Your task to perform on an android device: turn off javascript in the chrome app Image 0: 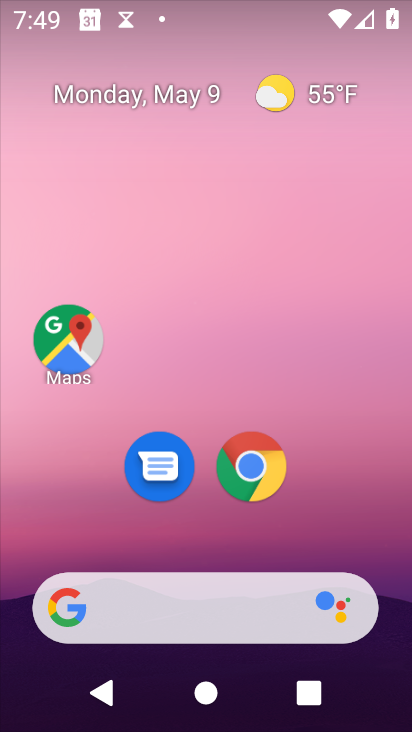
Step 0: click (215, 91)
Your task to perform on an android device: turn off javascript in the chrome app Image 1: 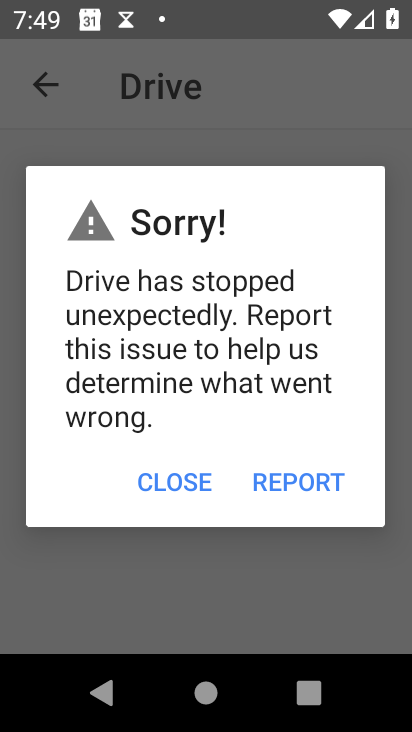
Step 1: click (187, 477)
Your task to perform on an android device: turn off javascript in the chrome app Image 2: 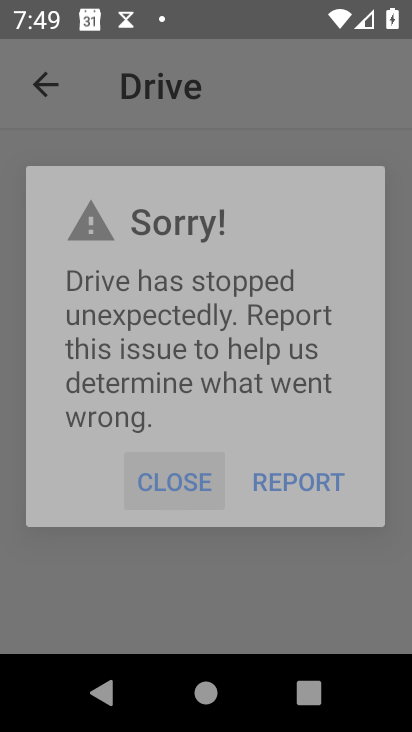
Step 2: click (187, 477)
Your task to perform on an android device: turn off javascript in the chrome app Image 3: 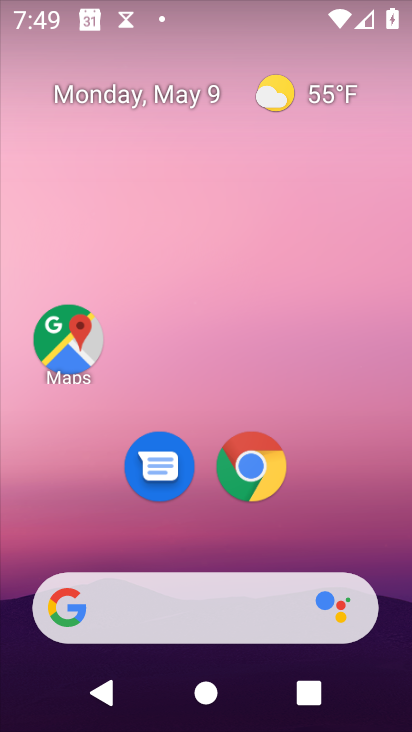
Step 3: drag from (327, 549) to (28, 81)
Your task to perform on an android device: turn off javascript in the chrome app Image 4: 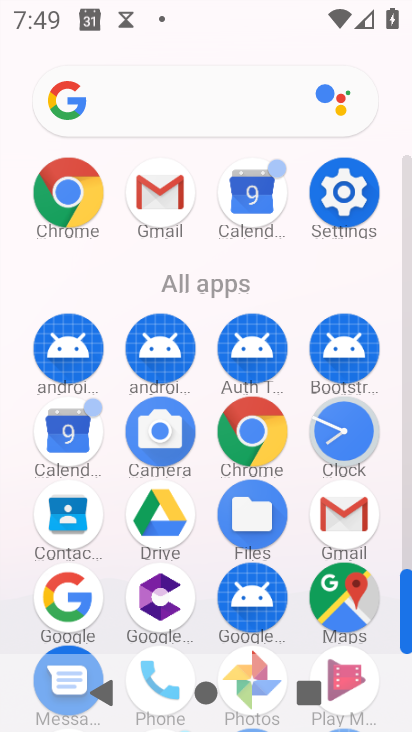
Step 4: click (246, 437)
Your task to perform on an android device: turn off javascript in the chrome app Image 5: 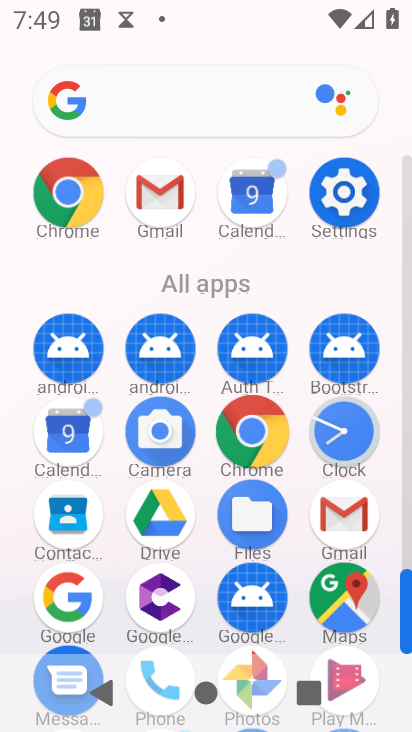
Step 5: click (249, 437)
Your task to perform on an android device: turn off javascript in the chrome app Image 6: 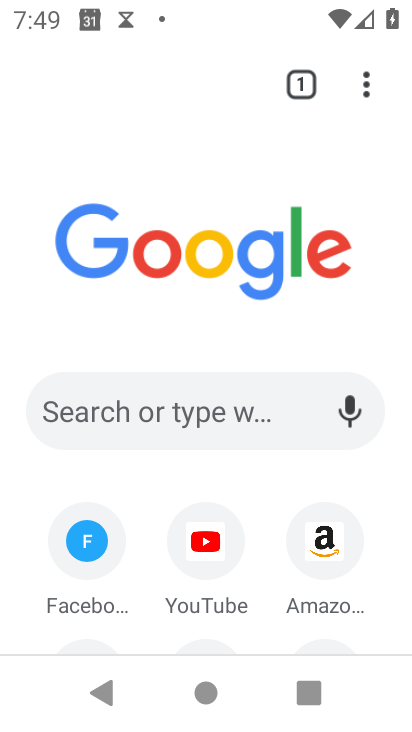
Step 6: drag from (364, 84) to (178, 452)
Your task to perform on an android device: turn off javascript in the chrome app Image 7: 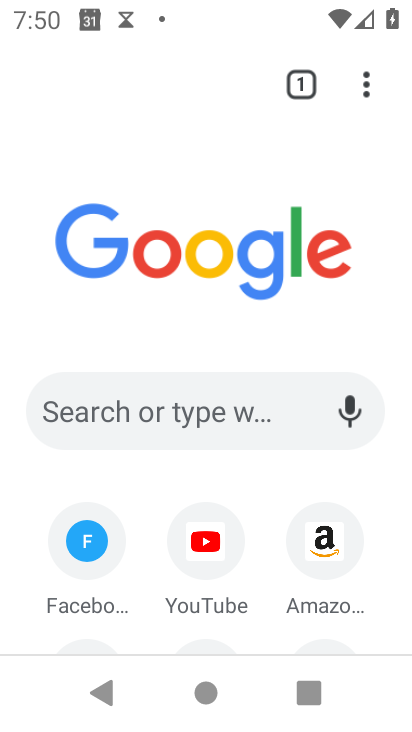
Step 7: drag from (128, 508) to (84, 129)
Your task to perform on an android device: turn off javascript in the chrome app Image 8: 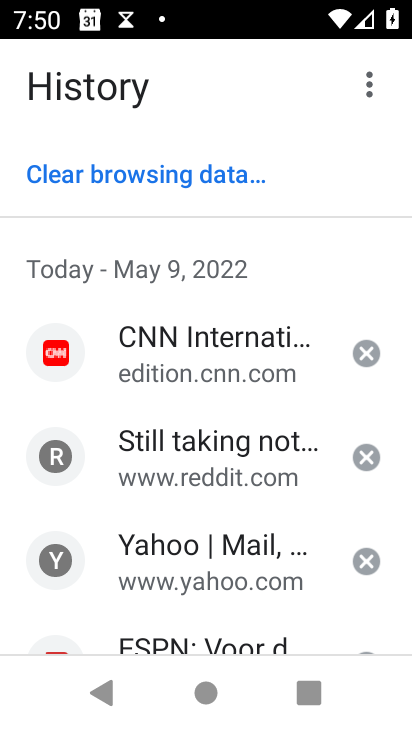
Step 8: click (146, 69)
Your task to perform on an android device: turn off javascript in the chrome app Image 9: 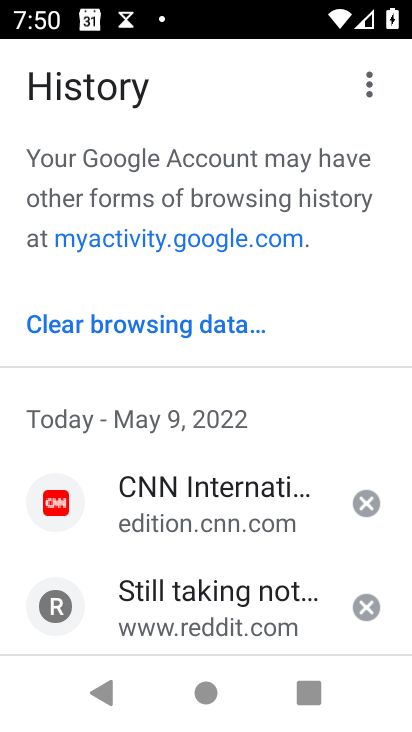
Step 9: press back button
Your task to perform on an android device: turn off javascript in the chrome app Image 10: 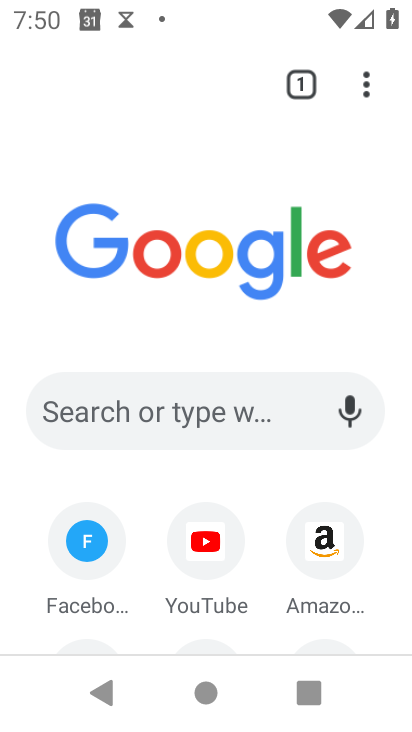
Step 10: drag from (353, 85) to (275, 523)
Your task to perform on an android device: turn off javascript in the chrome app Image 11: 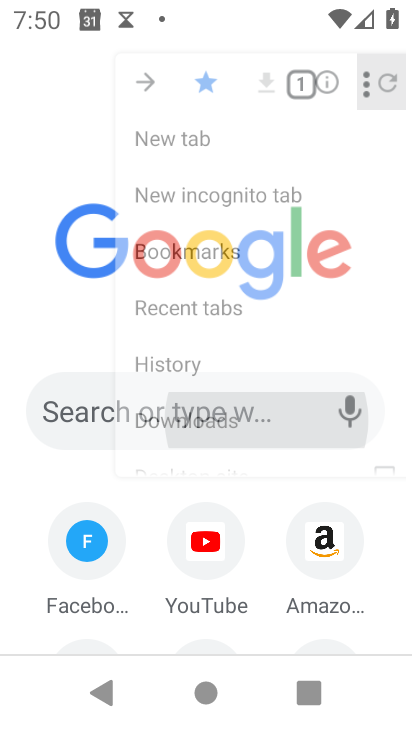
Step 11: drag from (252, 534) to (239, 151)
Your task to perform on an android device: turn off javascript in the chrome app Image 12: 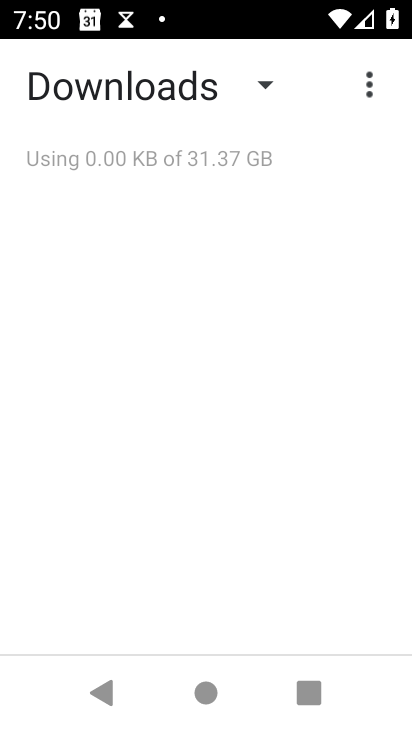
Step 12: drag from (239, 386) to (237, 101)
Your task to perform on an android device: turn off javascript in the chrome app Image 13: 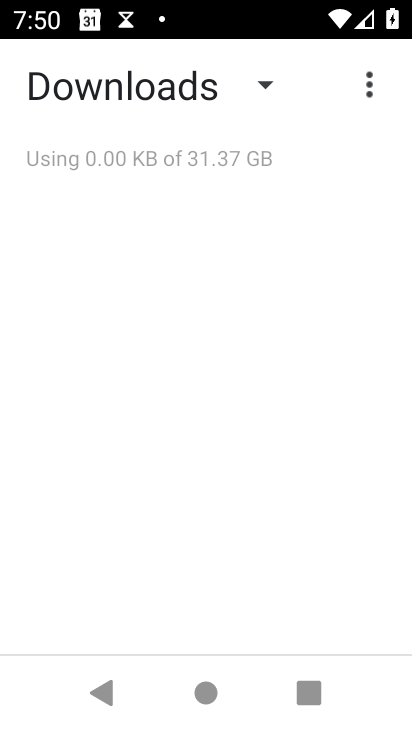
Step 13: press back button
Your task to perform on an android device: turn off javascript in the chrome app Image 14: 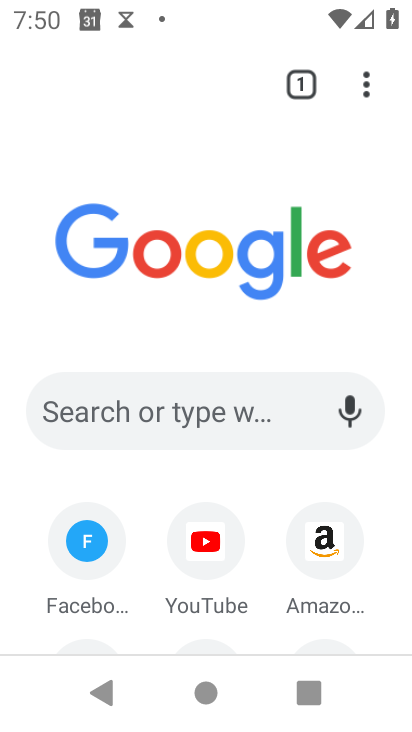
Step 14: click (370, 87)
Your task to perform on an android device: turn off javascript in the chrome app Image 15: 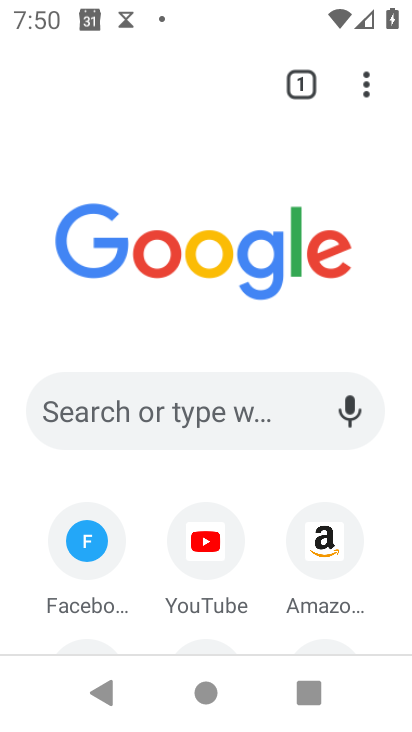
Step 15: click (370, 87)
Your task to perform on an android device: turn off javascript in the chrome app Image 16: 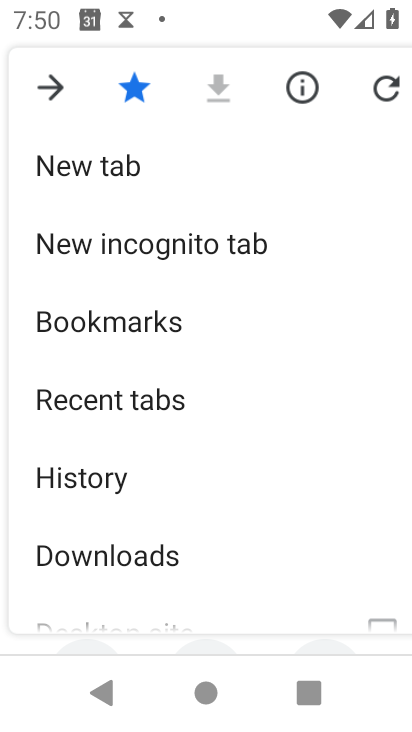
Step 16: drag from (208, 500) to (146, 173)
Your task to perform on an android device: turn off javascript in the chrome app Image 17: 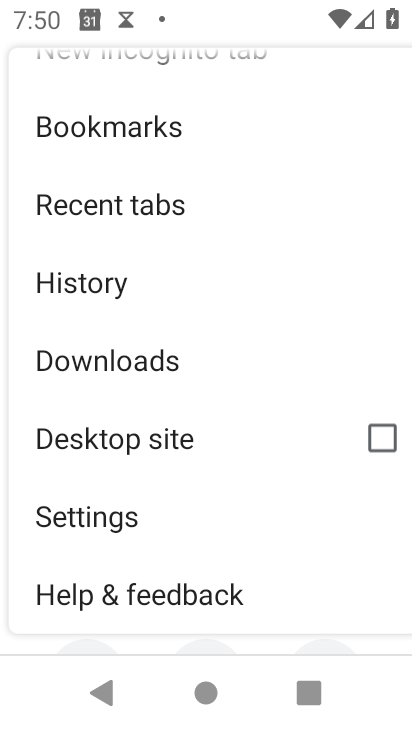
Step 17: click (83, 505)
Your task to perform on an android device: turn off javascript in the chrome app Image 18: 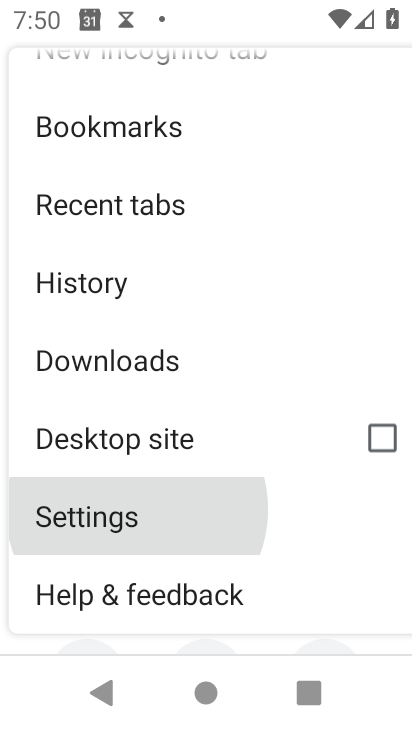
Step 18: click (83, 511)
Your task to perform on an android device: turn off javascript in the chrome app Image 19: 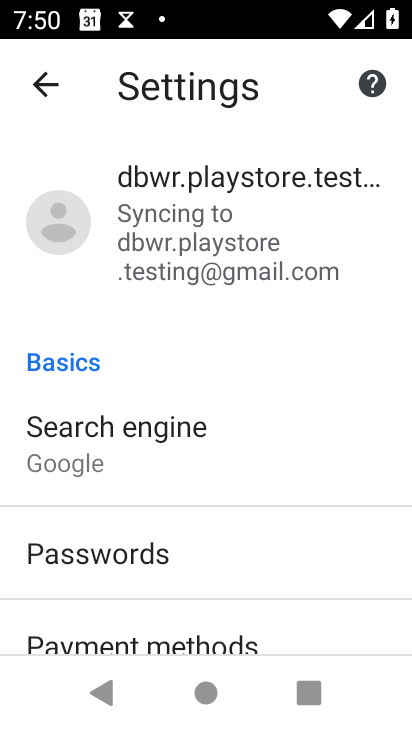
Step 19: drag from (194, 553) to (117, 150)
Your task to perform on an android device: turn off javascript in the chrome app Image 20: 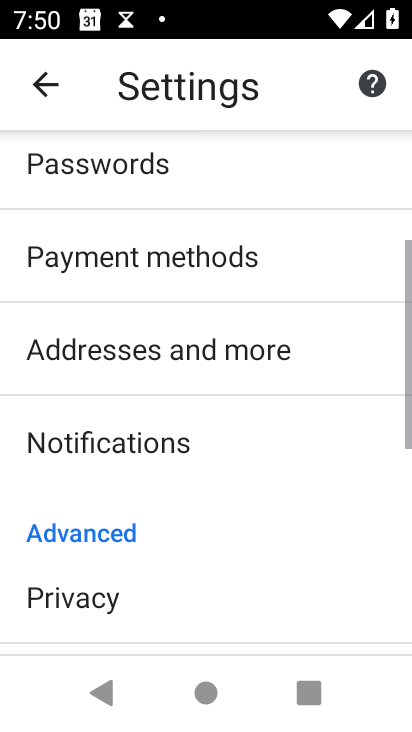
Step 20: drag from (194, 482) to (103, 119)
Your task to perform on an android device: turn off javascript in the chrome app Image 21: 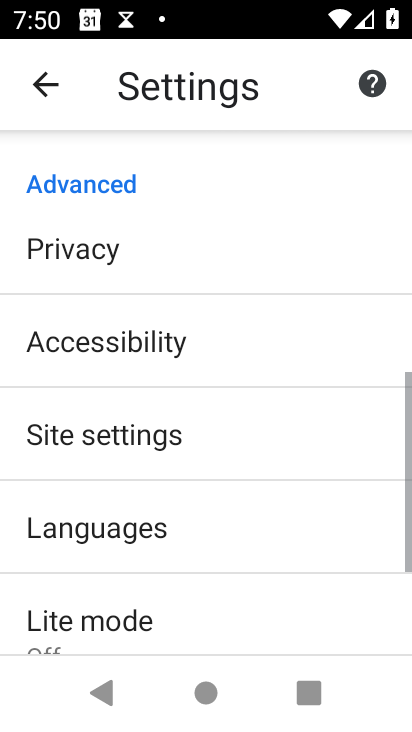
Step 21: drag from (148, 581) to (35, 192)
Your task to perform on an android device: turn off javascript in the chrome app Image 22: 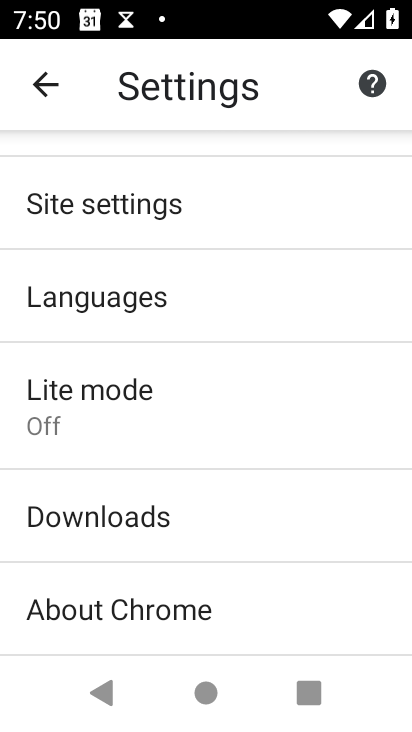
Step 22: click (82, 212)
Your task to perform on an android device: turn off javascript in the chrome app Image 23: 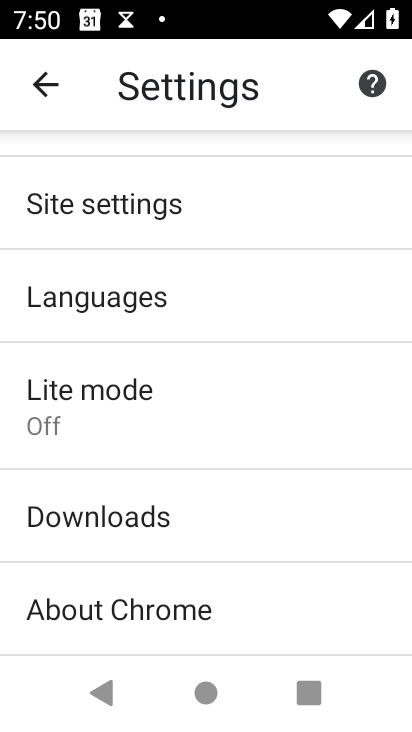
Step 23: click (82, 212)
Your task to perform on an android device: turn off javascript in the chrome app Image 24: 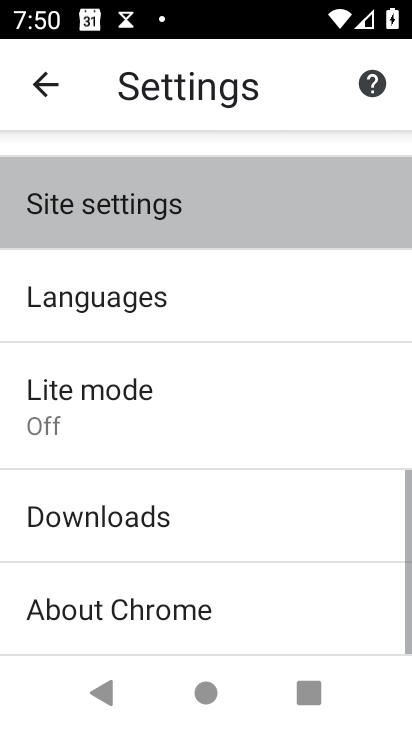
Step 24: click (82, 212)
Your task to perform on an android device: turn off javascript in the chrome app Image 25: 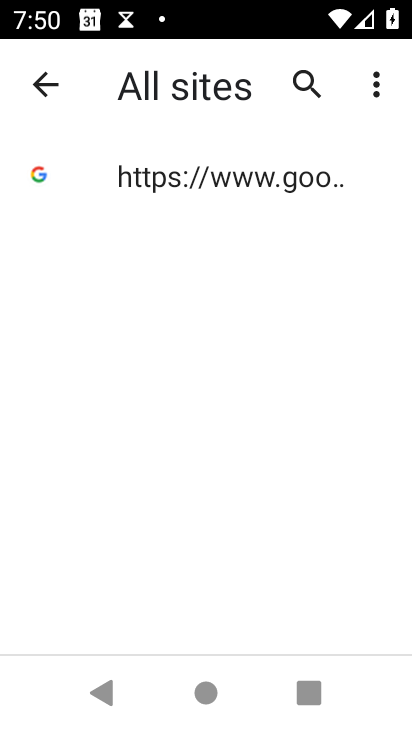
Step 25: click (46, 80)
Your task to perform on an android device: turn off javascript in the chrome app Image 26: 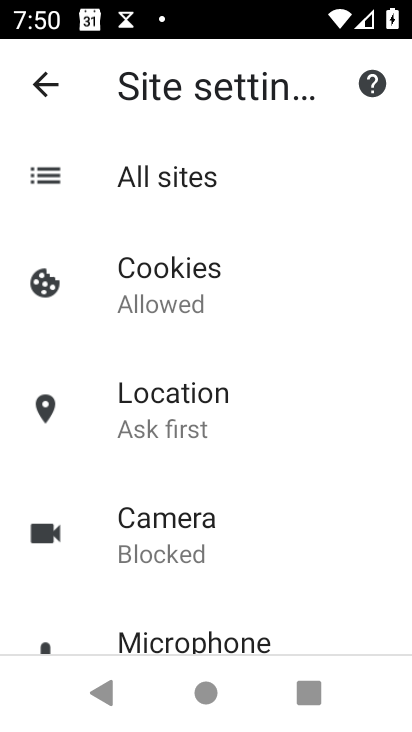
Step 26: drag from (226, 548) to (214, 205)
Your task to perform on an android device: turn off javascript in the chrome app Image 27: 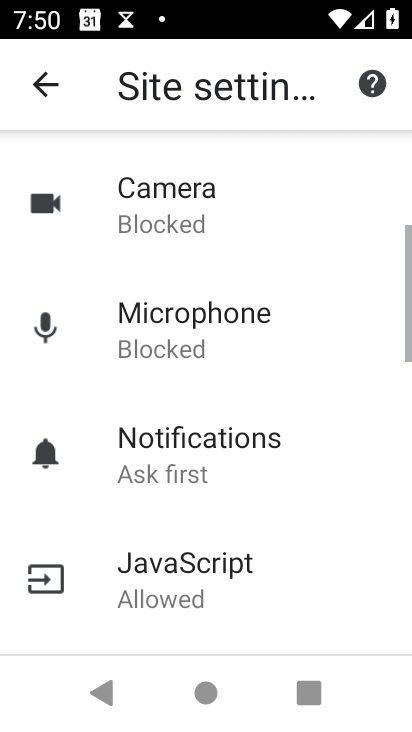
Step 27: drag from (278, 563) to (258, 282)
Your task to perform on an android device: turn off javascript in the chrome app Image 28: 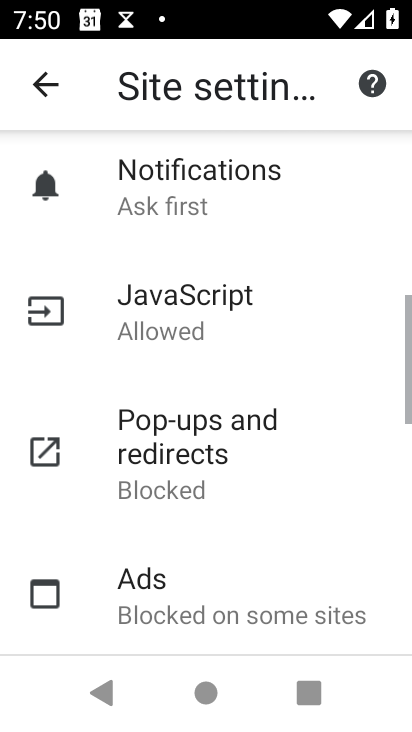
Step 28: click (166, 314)
Your task to perform on an android device: turn off javascript in the chrome app Image 29: 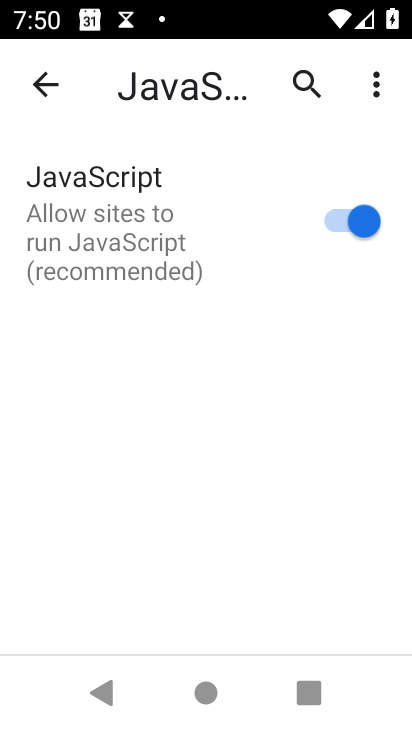
Step 29: click (353, 214)
Your task to perform on an android device: turn off javascript in the chrome app Image 30: 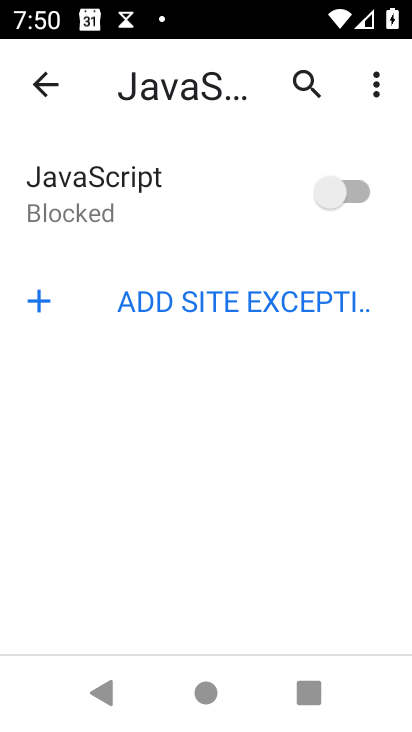
Step 30: task complete